Your task to perform on an android device: Open Google Chrome and open the bookmarks view Image 0: 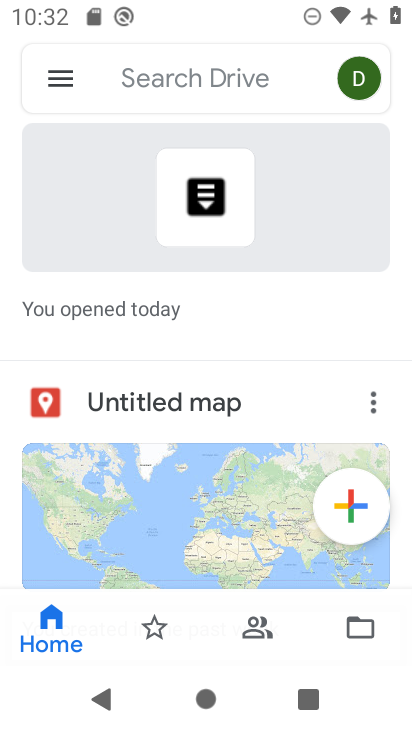
Step 0: press back button
Your task to perform on an android device: Open Google Chrome and open the bookmarks view Image 1: 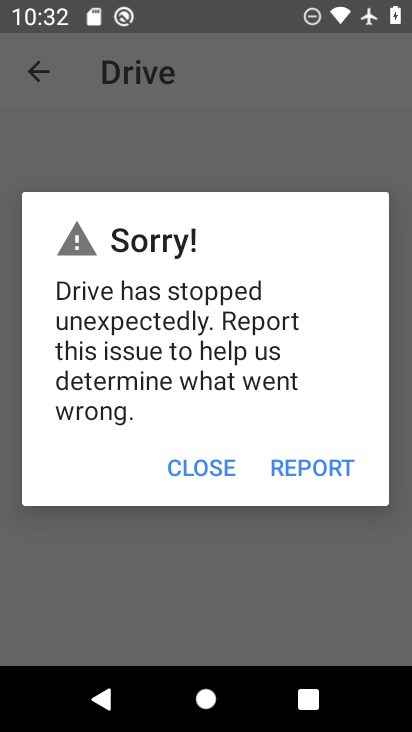
Step 1: press back button
Your task to perform on an android device: Open Google Chrome and open the bookmarks view Image 2: 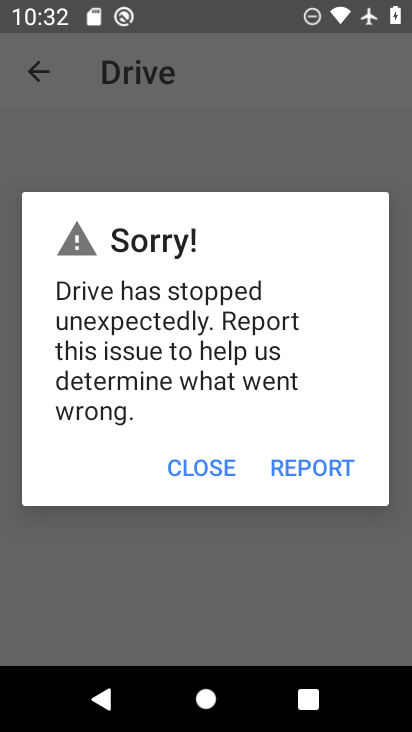
Step 2: press home button
Your task to perform on an android device: Open Google Chrome and open the bookmarks view Image 3: 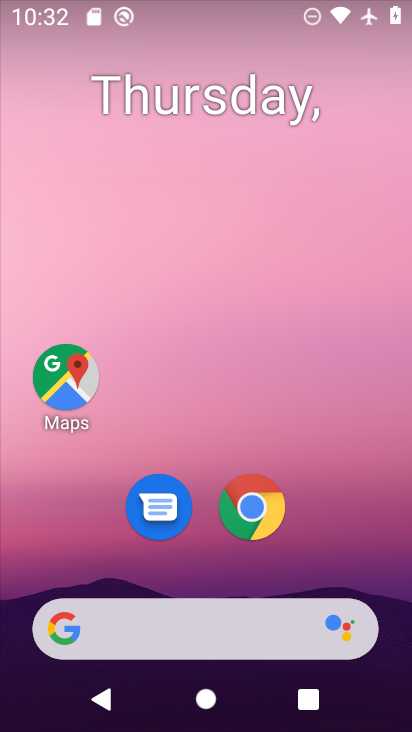
Step 3: drag from (327, 535) to (265, 6)
Your task to perform on an android device: Open Google Chrome and open the bookmarks view Image 4: 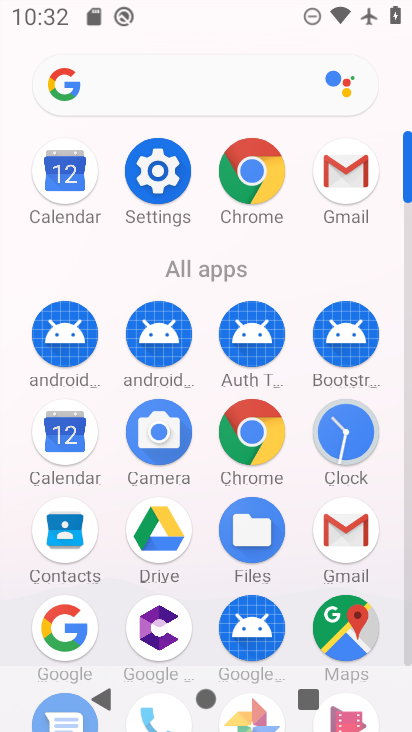
Step 4: drag from (13, 583) to (10, 247)
Your task to perform on an android device: Open Google Chrome and open the bookmarks view Image 5: 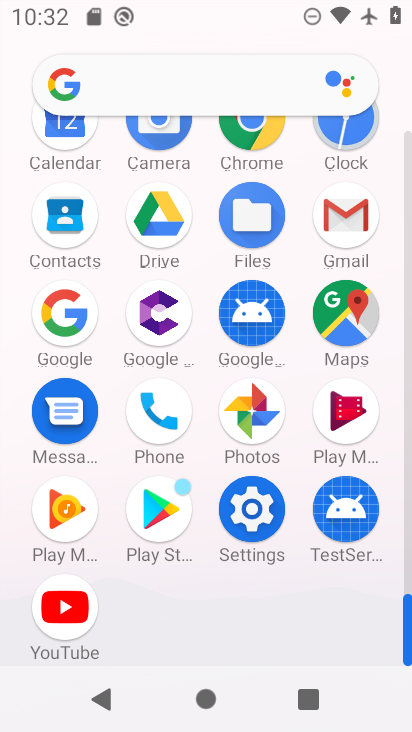
Step 5: click (252, 125)
Your task to perform on an android device: Open Google Chrome and open the bookmarks view Image 6: 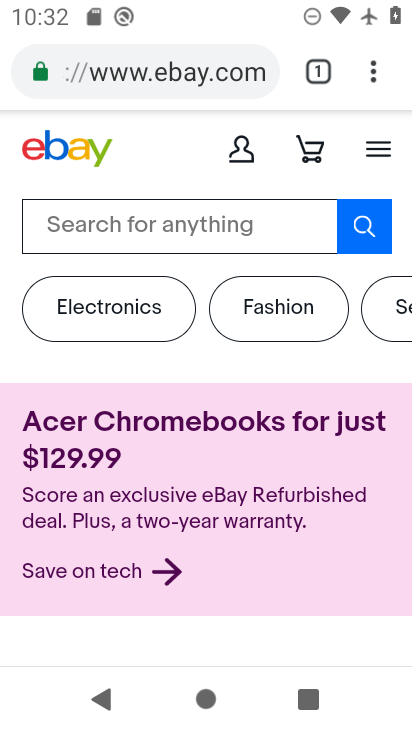
Step 6: task complete